Your task to perform on an android device: Open the phone app and click the voicemail tab. Image 0: 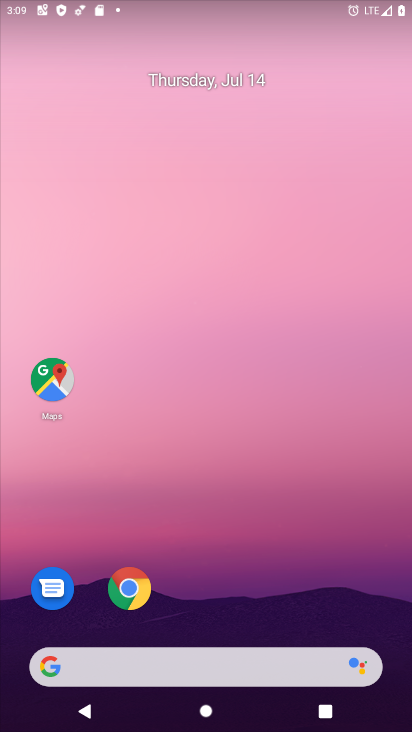
Step 0: click (256, 266)
Your task to perform on an android device: Open the phone app and click the voicemail tab. Image 1: 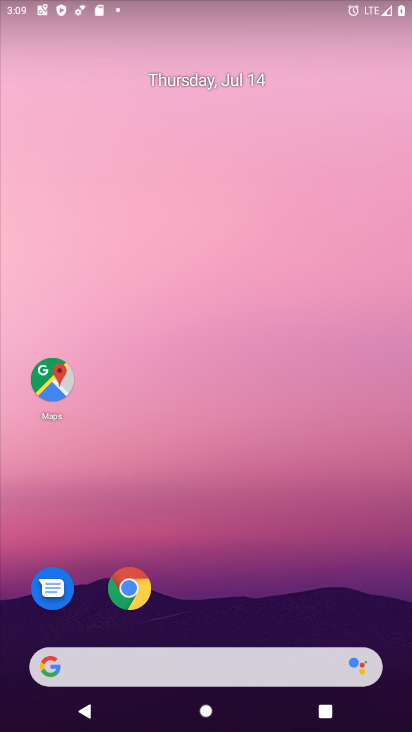
Step 1: drag from (255, 637) to (289, 232)
Your task to perform on an android device: Open the phone app and click the voicemail tab. Image 2: 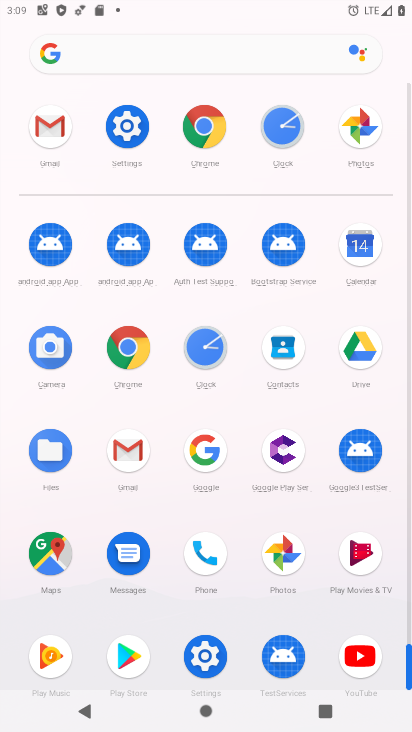
Step 2: click (200, 540)
Your task to perform on an android device: Open the phone app and click the voicemail tab. Image 3: 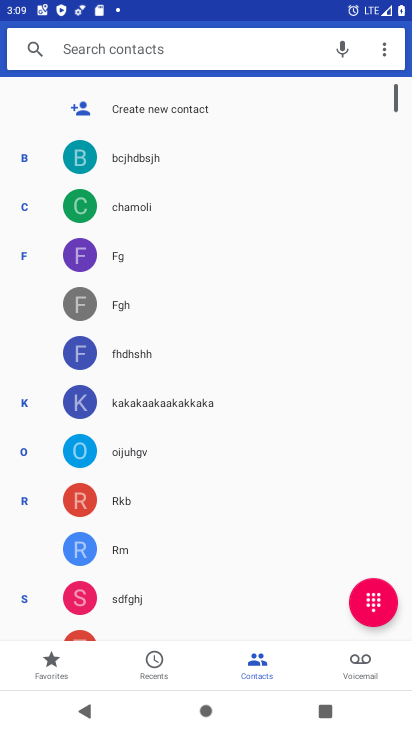
Step 3: click (353, 656)
Your task to perform on an android device: Open the phone app and click the voicemail tab. Image 4: 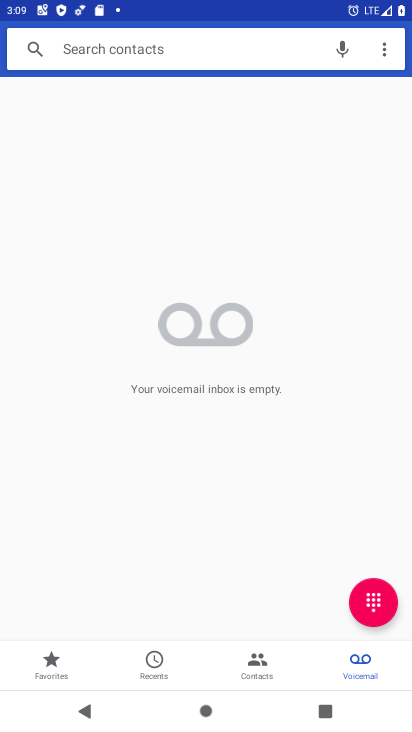
Step 4: task complete